Your task to perform on an android device: turn off data saver in the chrome app Image 0: 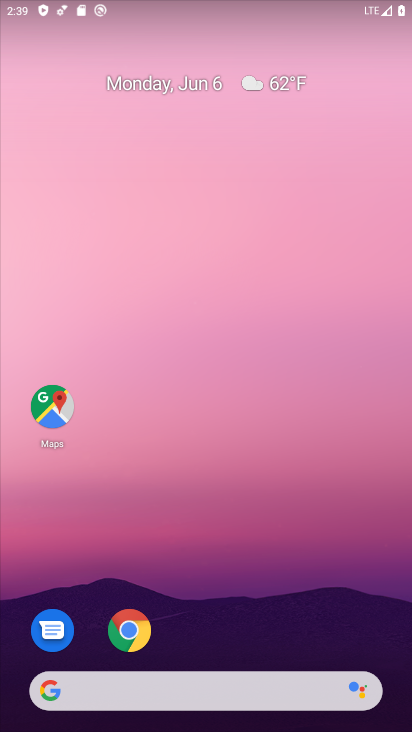
Step 0: drag from (277, 651) to (168, 60)
Your task to perform on an android device: turn off data saver in the chrome app Image 1: 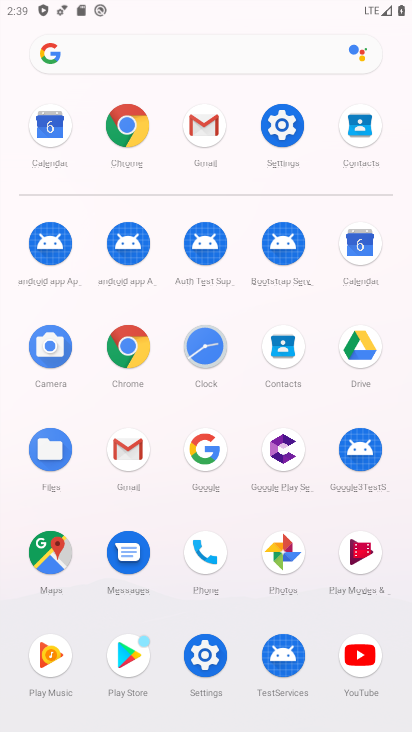
Step 1: click (123, 128)
Your task to perform on an android device: turn off data saver in the chrome app Image 2: 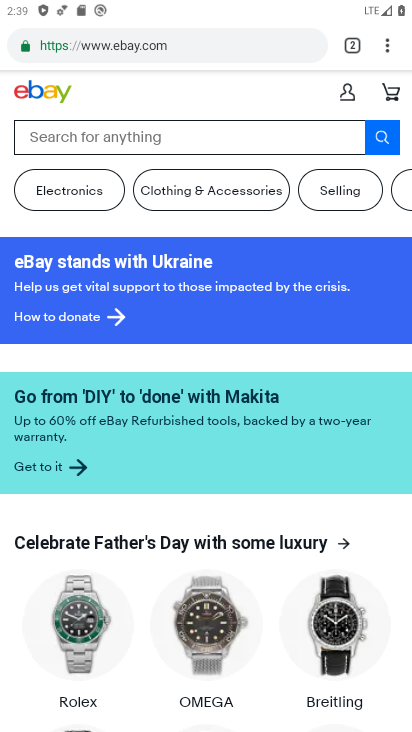
Step 2: drag from (381, 40) to (221, 542)
Your task to perform on an android device: turn off data saver in the chrome app Image 3: 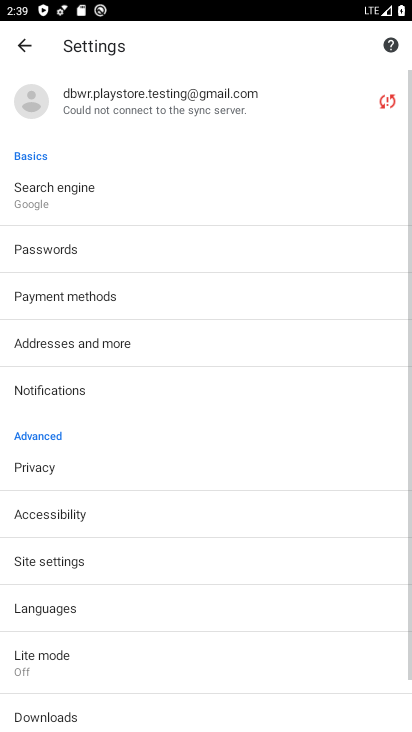
Step 3: drag from (249, 675) to (158, 558)
Your task to perform on an android device: turn off data saver in the chrome app Image 4: 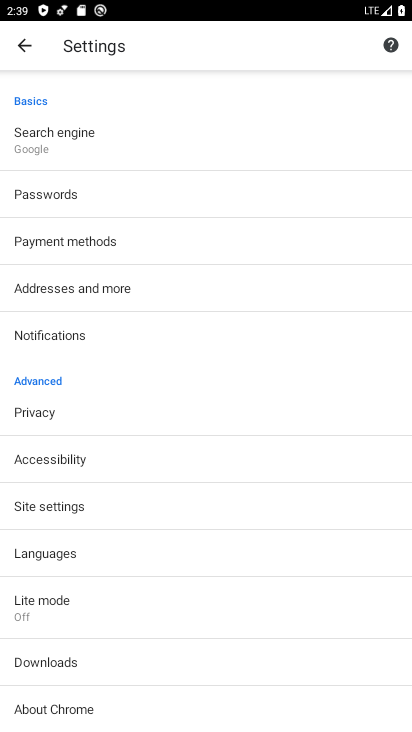
Step 4: click (100, 608)
Your task to perform on an android device: turn off data saver in the chrome app Image 5: 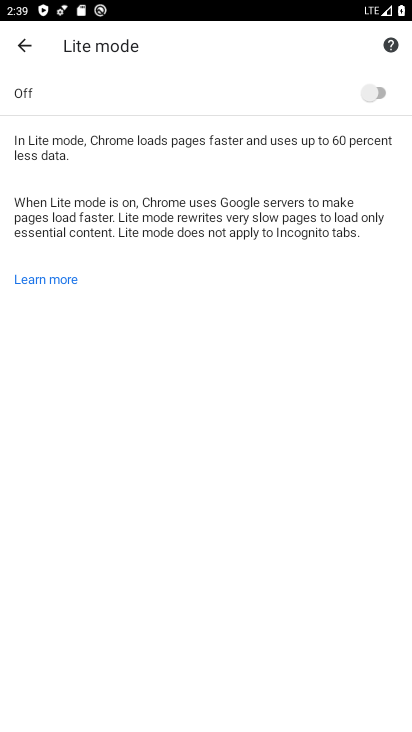
Step 5: task complete